Your task to perform on an android device: turn on javascript in the chrome app Image 0: 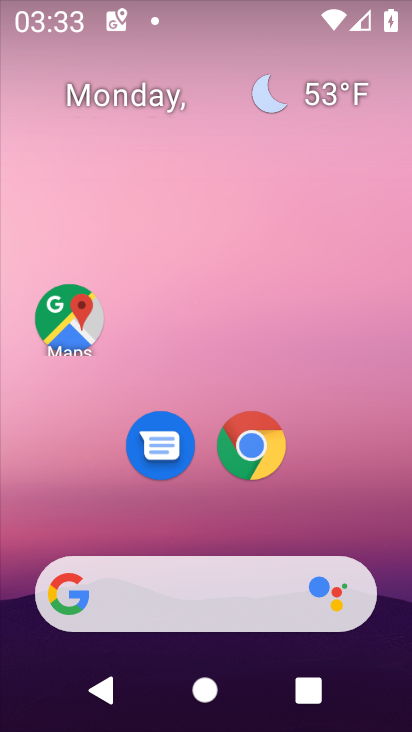
Step 0: click (255, 451)
Your task to perform on an android device: turn on javascript in the chrome app Image 1: 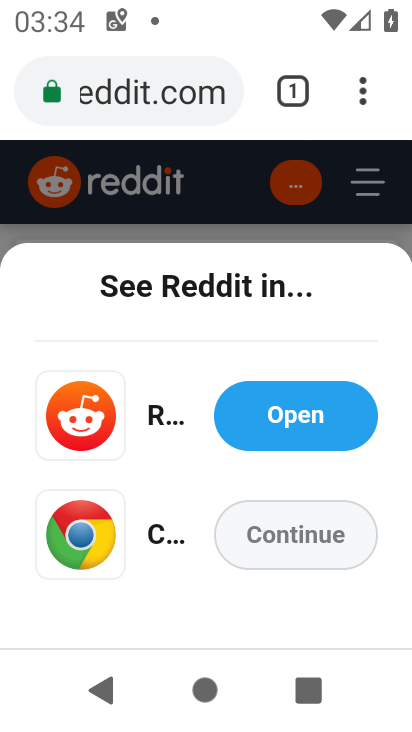
Step 1: click (360, 88)
Your task to perform on an android device: turn on javascript in the chrome app Image 2: 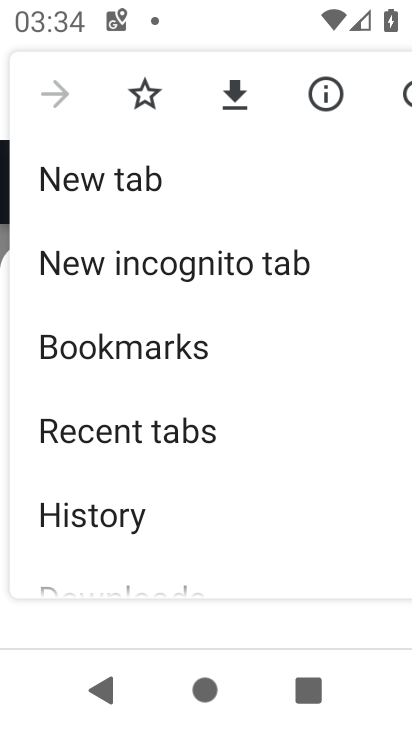
Step 2: drag from (194, 533) to (202, 236)
Your task to perform on an android device: turn on javascript in the chrome app Image 3: 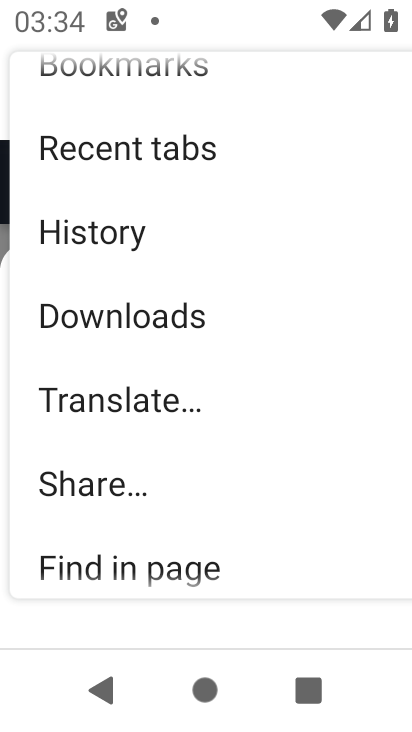
Step 3: drag from (102, 499) to (139, 268)
Your task to perform on an android device: turn on javascript in the chrome app Image 4: 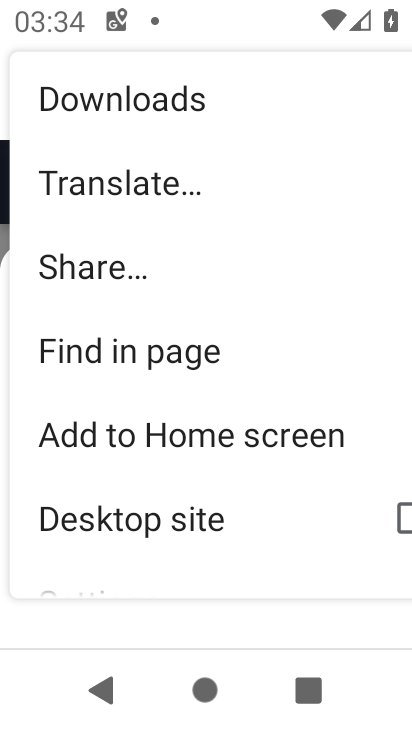
Step 4: drag from (95, 537) to (138, 267)
Your task to perform on an android device: turn on javascript in the chrome app Image 5: 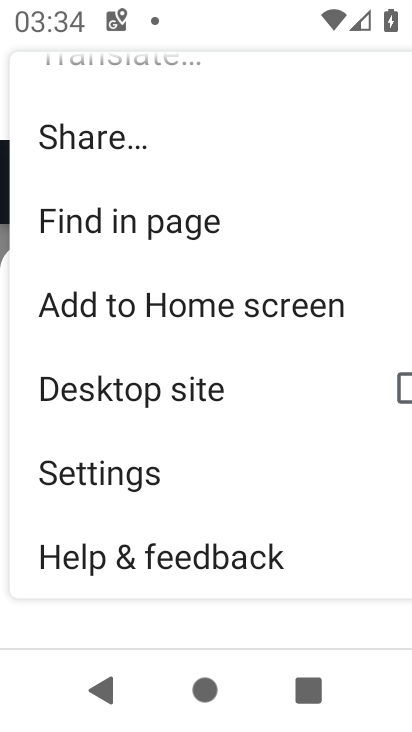
Step 5: click (119, 494)
Your task to perform on an android device: turn on javascript in the chrome app Image 6: 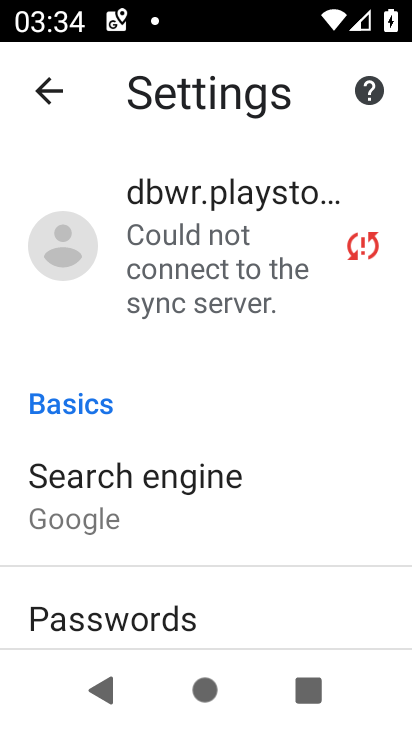
Step 6: drag from (136, 557) to (177, 368)
Your task to perform on an android device: turn on javascript in the chrome app Image 7: 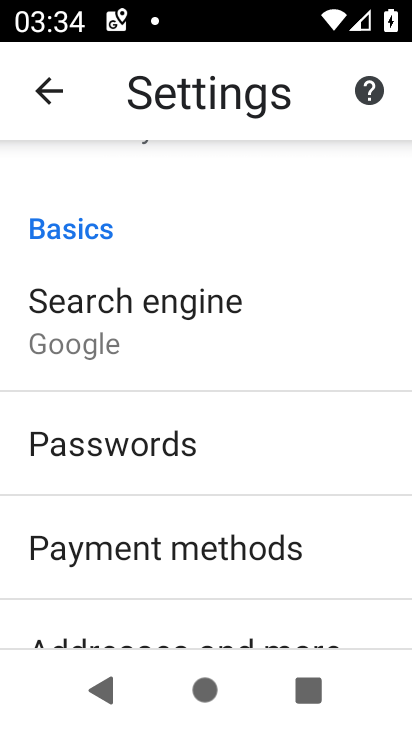
Step 7: drag from (110, 561) to (152, 303)
Your task to perform on an android device: turn on javascript in the chrome app Image 8: 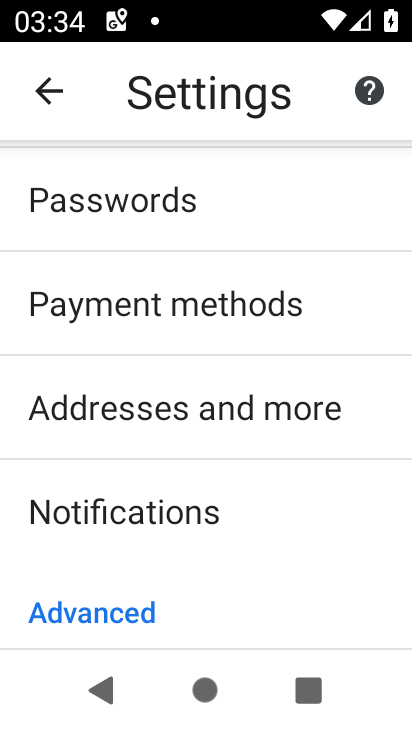
Step 8: drag from (120, 589) to (144, 480)
Your task to perform on an android device: turn on javascript in the chrome app Image 9: 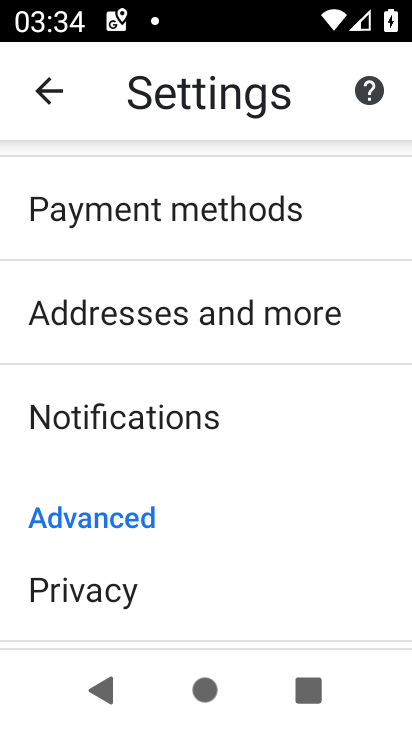
Step 9: drag from (166, 555) to (206, 269)
Your task to perform on an android device: turn on javascript in the chrome app Image 10: 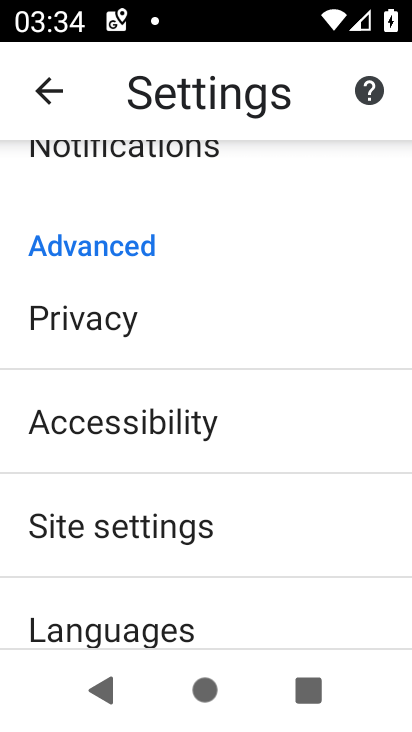
Step 10: click (132, 515)
Your task to perform on an android device: turn on javascript in the chrome app Image 11: 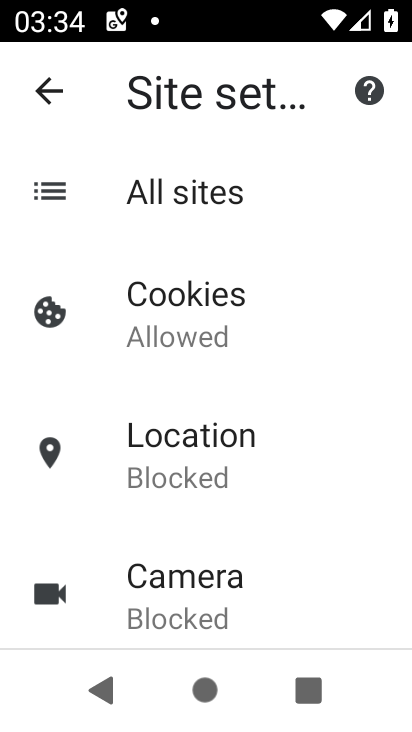
Step 11: drag from (146, 582) to (145, 522)
Your task to perform on an android device: turn on javascript in the chrome app Image 12: 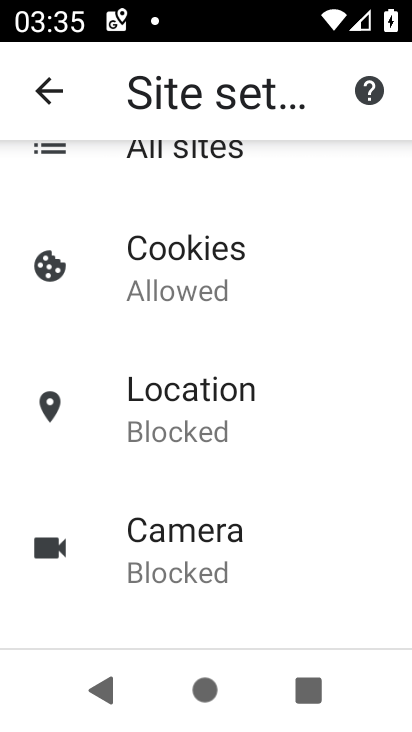
Step 12: drag from (176, 588) to (209, 288)
Your task to perform on an android device: turn on javascript in the chrome app Image 13: 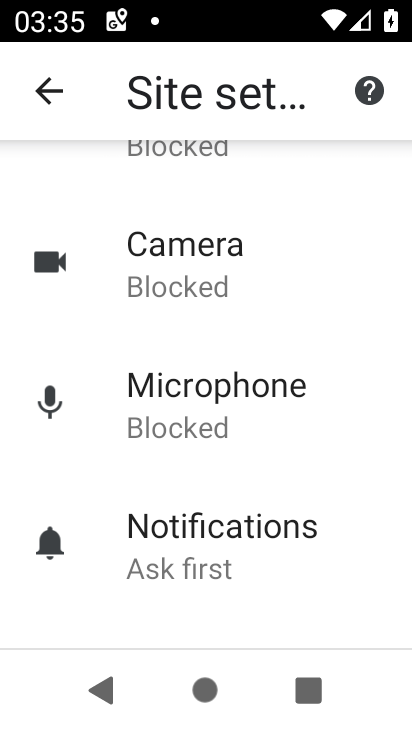
Step 13: drag from (218, 545) to (239, 376)
Your task to perform on an android device: turn on javascript in the chrome app Image 14: 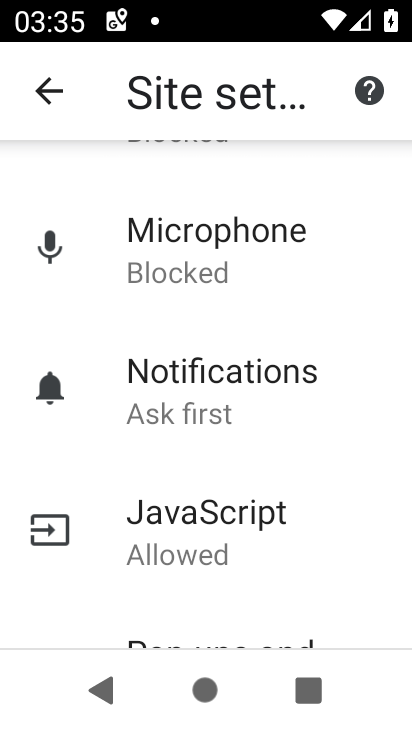
Step 14: click (211, 533)
Your task to perform on an android device: turn on javascript in the chrome app Image 15: 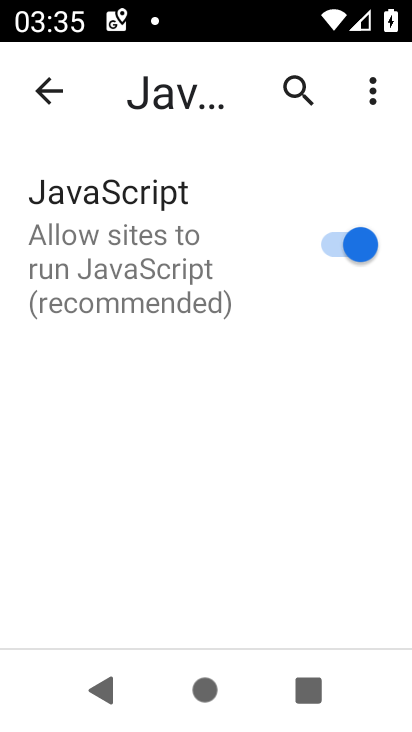
Step 15: task complete